Your task to perform on an android device: turn off notifications settings in the gmail app Image 0: 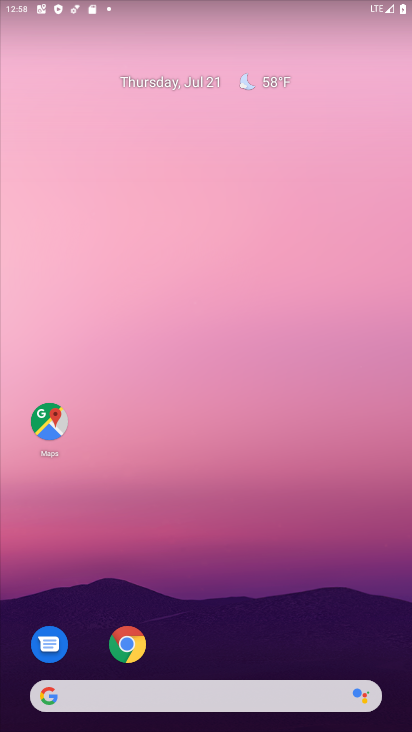
Step 0: drag from (306, 611) to (322, 62)
Your task to perform on an android device: turn off notifications settings in the gmail app Image 1: 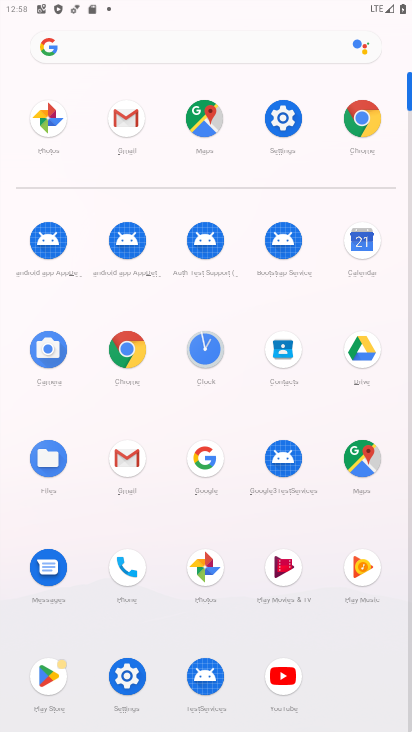
Step 1: click (132, 126)
Your task to perform on an android device: turn off notifications settings in the gmail app Image 2: 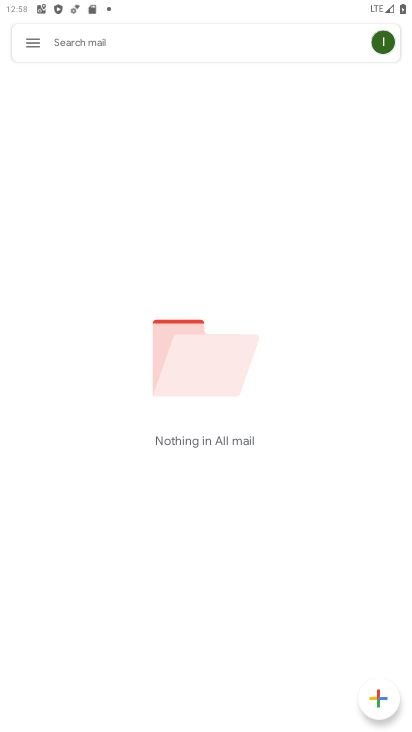
Step 2: click (33, 44)
Your task to perform on an android device: turn off notifications settings in the gmail app Image 3: 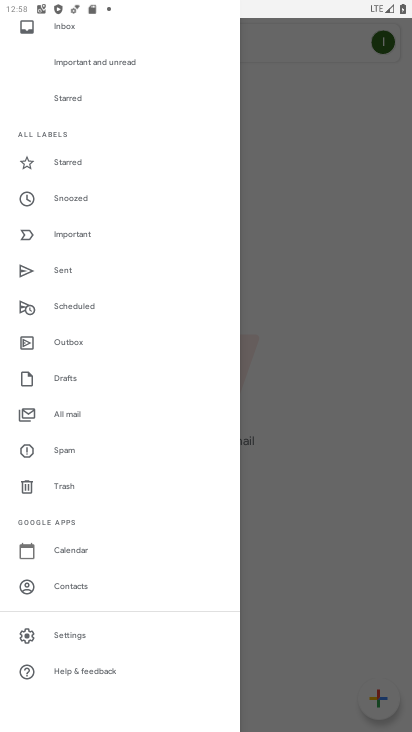
Step 3: drag from (182, 368) to (183, 300)
Your task to perform on an android device: turn off notifications settings in the gmail app Image 4: 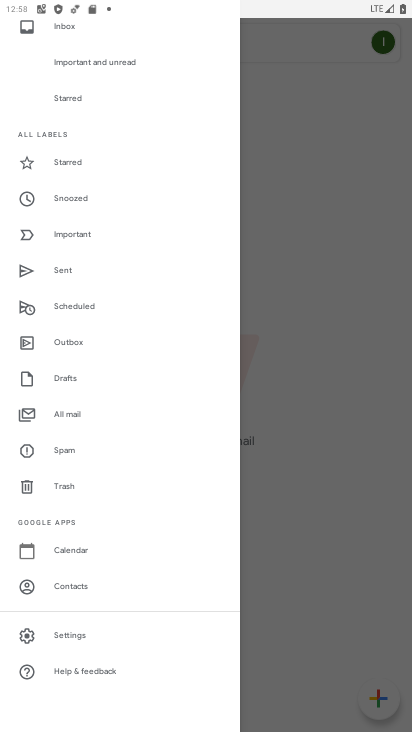
Step 4: click (154, 632)
Your task to perform on an android device: turn off notifications settings in the gmail app Image 5: 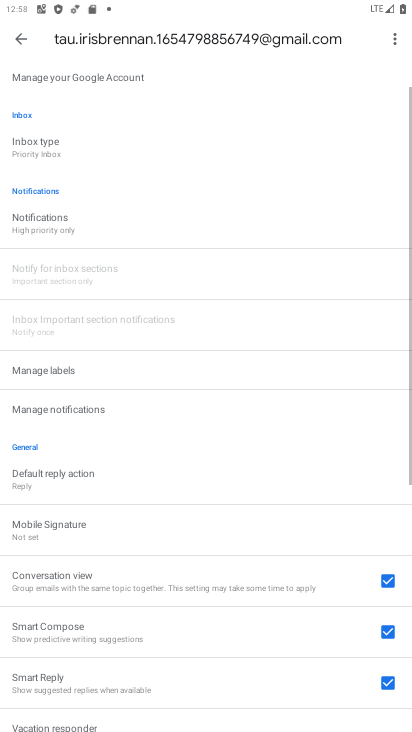
Step 5: drag from (281, 532) to (324, 265)
Your task to perform on an android device: turn off notifications settings in the gmail app Image 6: 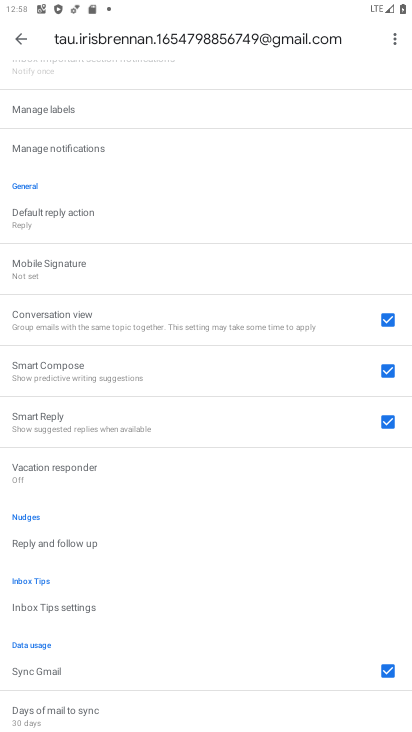
Step 6: drag from (326, 481) to (327, 393)
Your task to perform on an android device: turn off notifications settings in the gmail app Image 7: 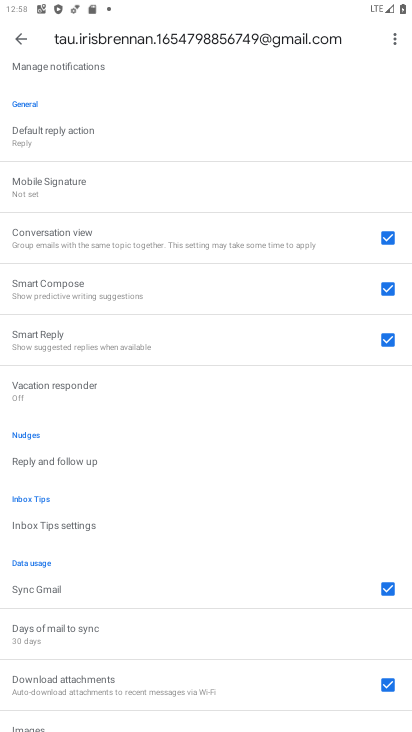
Step 7: drag from (309, 510) to (309, 408)
Your task to perform on an android device: turn off notifications settings in the gmail app Image 8: 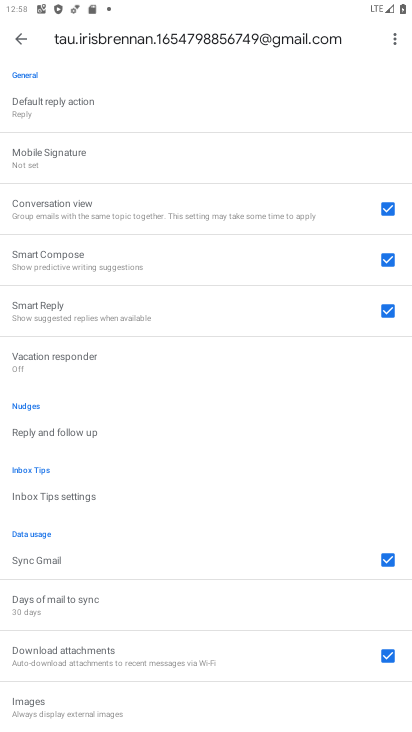
Step 8: drag from (297, 282) to (297, 399)
Your task to perform on an android device: turn off notifications settings in the gmail app Image 9: 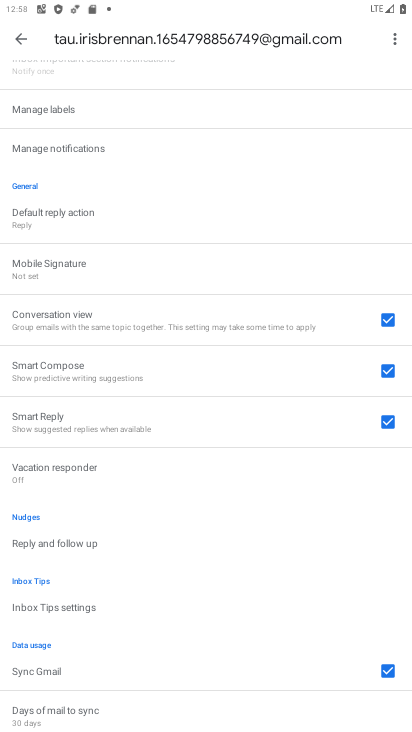
Step 9: drag from (218, 230) to (230, 305)
Your task to perform on an android device: turn off notifications settings in the gmail app Image 10: 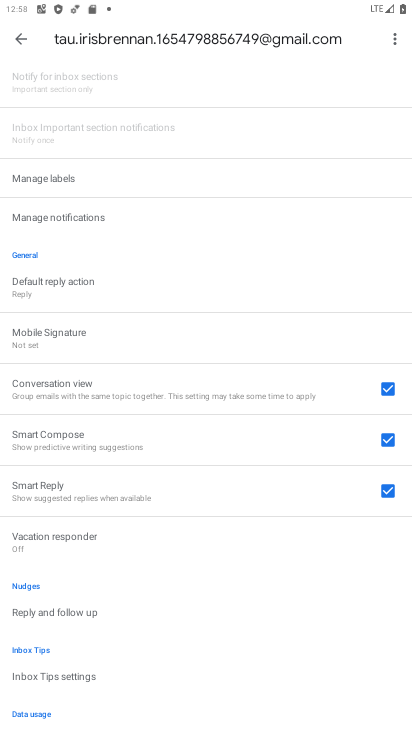
Step 10: click (196, 219)
Your task to perform on an android device: turn off notifications settings in the gmail app Image 11: 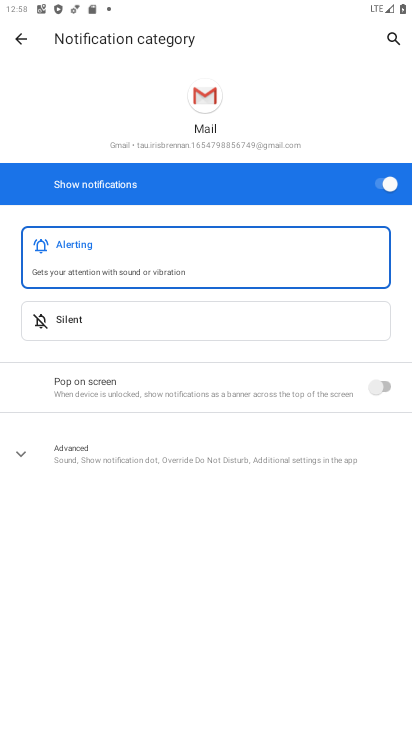
Step 11: click (387, 183)
Your task to perform on an android device: turn off notifications settings in the gmail app Image 12: 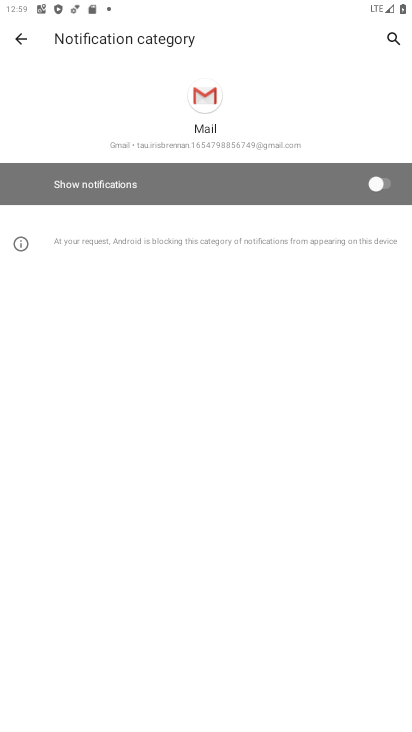
Step 12: task complete